Your task to perform on an android device: open app "ColorNote Notepad Notes" (install if not already installed) and enter user name: "unbridled@gmail.com" and password: "regularly" Image 0: 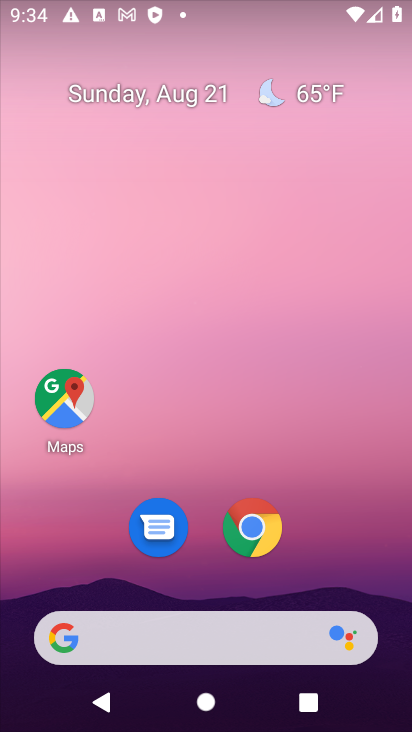
Step 0: drag from (217, 592) to (246, 7)
Your task to perform on an android device: open app "ColorNote Notepad Notes" (install if not already installed) and enter user name: "unbridled@gmail.com" and password: "regularly" Image 1: 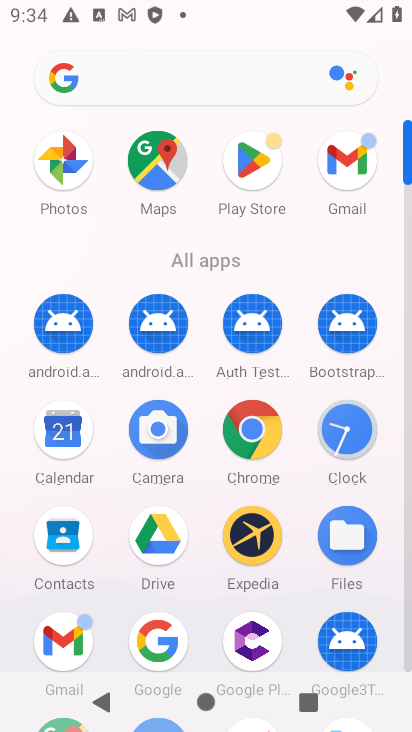
Step 1: click (251, 167)
Your task to perform on an android device: open app "ColorNote Notepad Notes" (install if not already installed) and enter user name: "unbridled@gmail.com" and password: "regularly" Image 2: 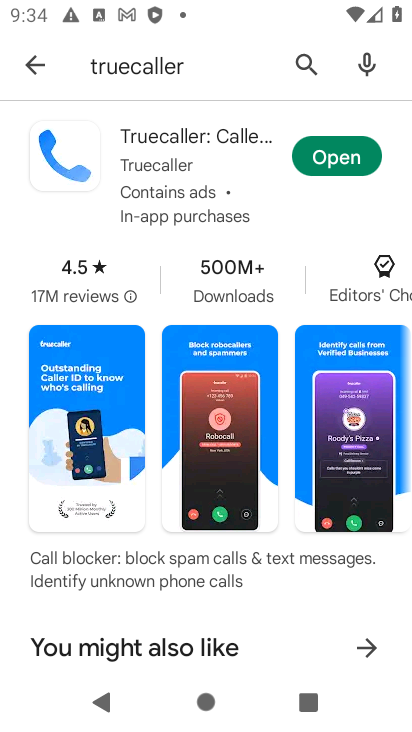
Step 2: click (187, 70)
Your task to perform on an android device: open app "ColorNote Notepad Notes" (install if not already installed) and enter user name: "unbridled@gmail.com" and password: "regularly" Image 3: 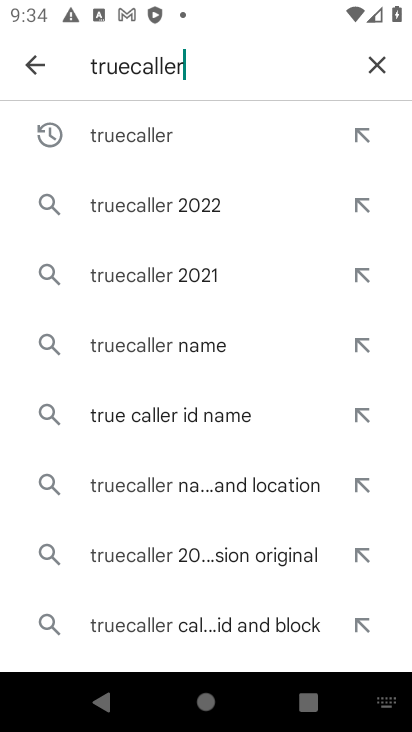
Step 3: click (370, 64)
Your task to perform on an android device: open app "ColorNote Notepad Notes" (install if not already installed) and enter user name: "unbridled@gmail.com" and password: "regularly" Image 4: 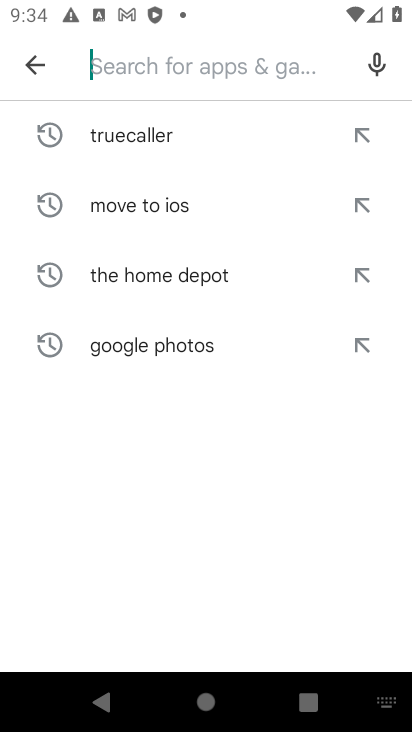
Step 4: type "colornote notepad notes"
Your task to perform on an android device: open app "ColorNote Notepad Notes" (install if not already installed) and enter user name: "unbridled@gmail.com" and password: "regularly" Image 5: 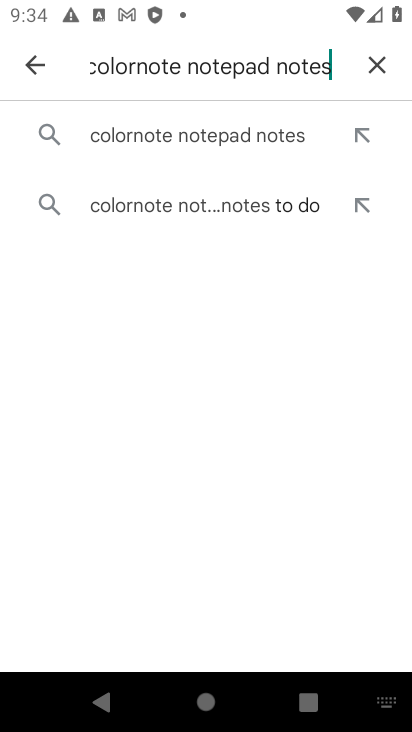
Step 5: click (172, 131)
Your task to perform on an android device: open app "ColorNote Notepad Notes" (install if not already installed) and enter user name: "unbridled@gmail.com" and password: "regularly" Image 6: 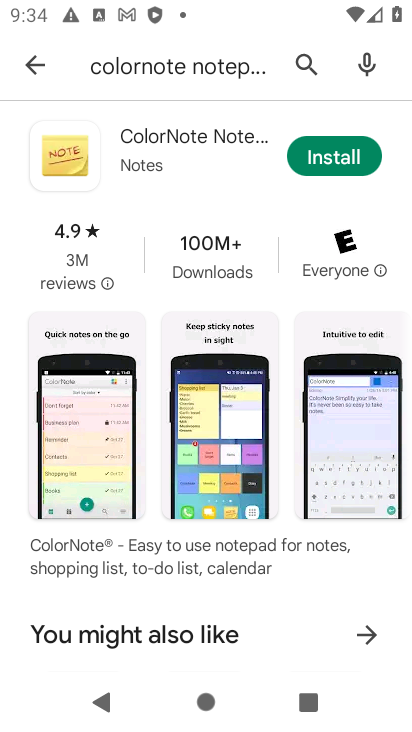
Step 6: click (362, 162)
Your task to perform on an android device: open app "ColorNote Notepad Notes" (install if not already installed) and enter user name: "unbridled@gmail.com" and password: "regularly" Image 7: 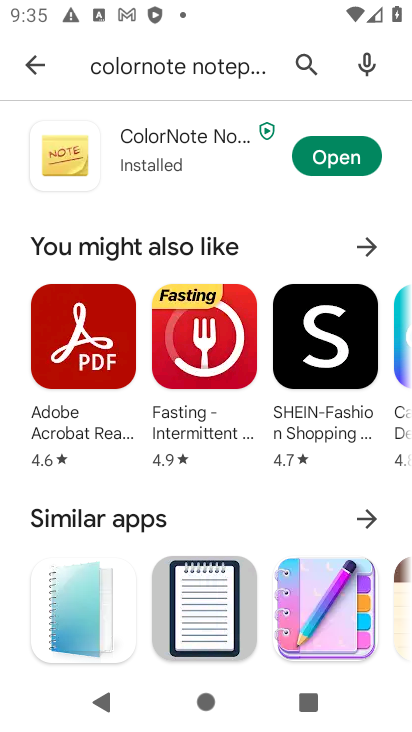
Step 7: click (347, 159)
Your task to perform on an android device: open app "ColorNote Notepad Notes" (install if not already installed) and enter user name: "unbridled@gmail.com" and password: "regularly" Image 8: 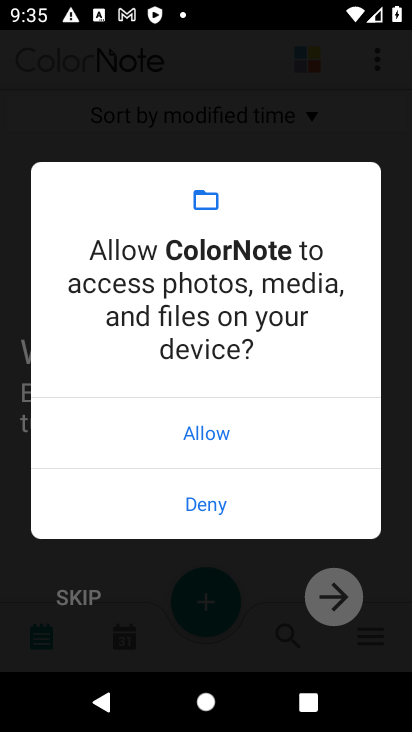
Step 8: click (234, 434)
Your task to perform on an android device: open app "ColorNote Notepad Notes" (install if not already installed) and enter user name: "unbridled@gmail.com" and password: "regularly" Image 9: 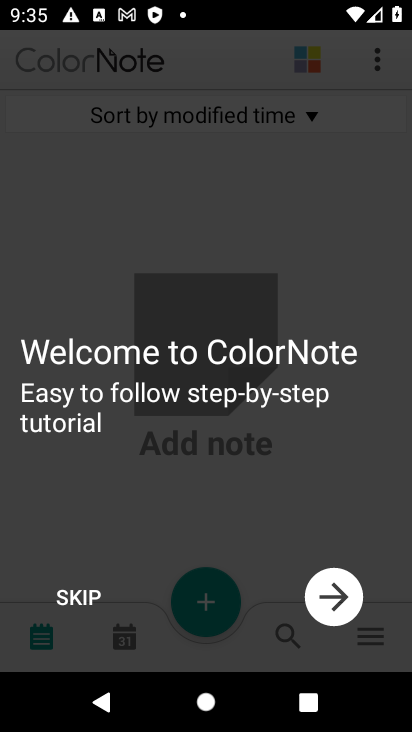
Step 9: click (74, 600)
Your task to perform on an android device: open app "ColorNote Notepad Notes" (install if not already installed) and enter user name: "unbridled@gmail.com" and password: "regularly" Image 10: 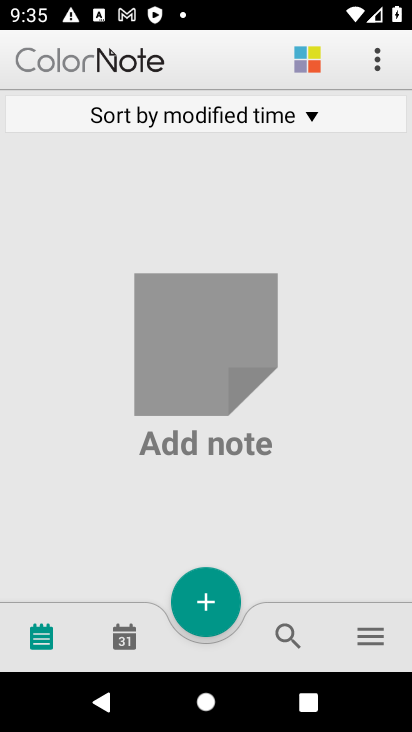
Step 10: click (371, 645)
Your task to perform on an android device: open app "ColorNote Notepad Notes" (install if not already installed) and enter user name: "unbridled@gmail.com" and password: "regularly" Image 11: 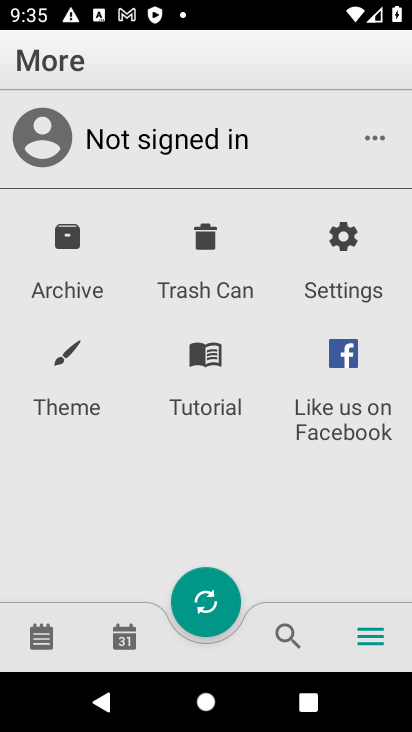
Step 11: click (52, 139)
Your task to perform on an android device: open app "ColorNote Notepad Notes" (install if not already installed) and enter user name: "unbridled@gmail.com" and password: "regularly" Image 12: 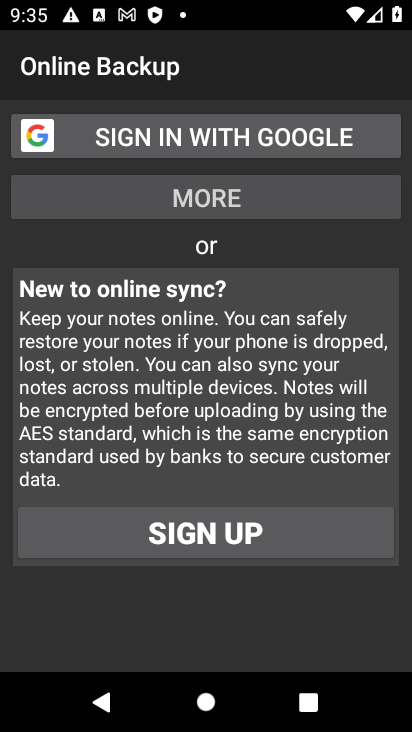
Step 12: click (250, 131)
Your task to perform on an android device: open app "ColorNote Notepad Notes" (install if not already installed) and enter user name: "unbridled@gmail.com" and password: "regularly" Image 13: 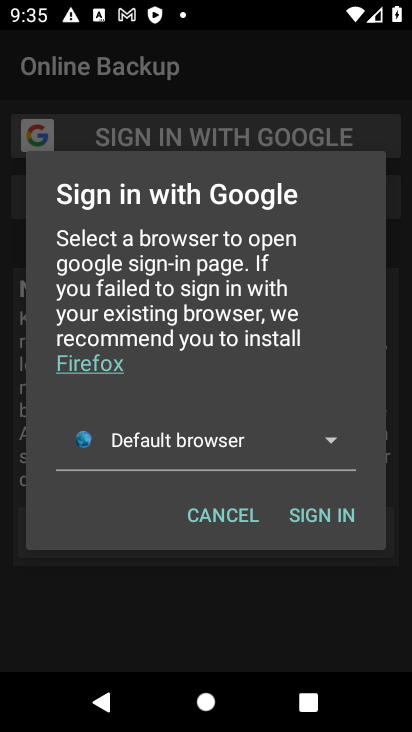
Step 13: click (324, 508)
Your task to perform on an android device: open app "ColorNote Notepad Notes" (install if not already installed) and enter user name: "unbridled@gmail.com" and password: "regularly" Image 14: 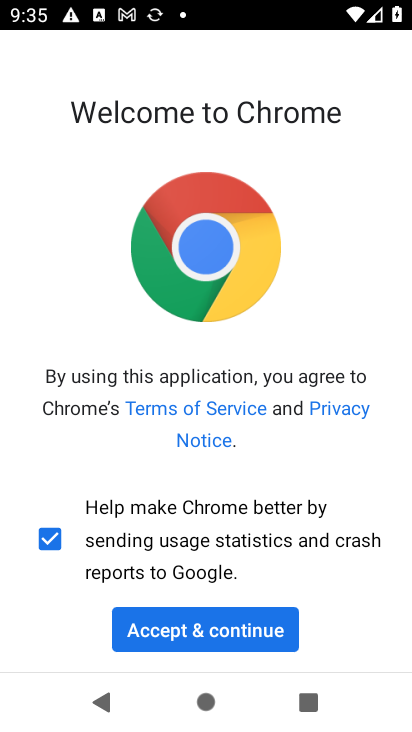
Step 14: click (209, 627)
Your task to perform on an android device: open app "ColorNote Notepad Notes" (install if not already installed) and enter user name: "unbridled@gmail.com" and password: "regularly" Image 15: 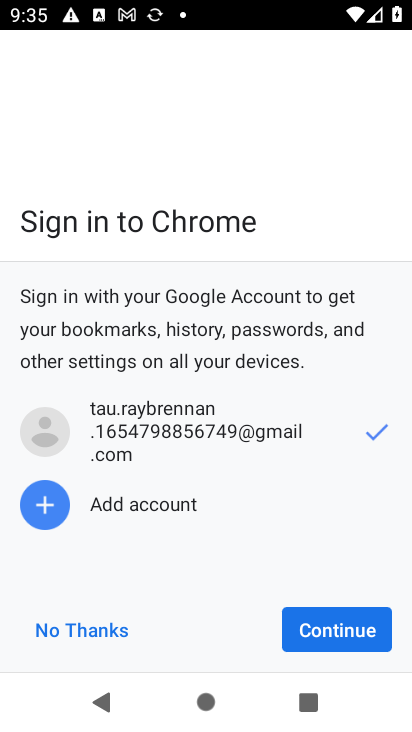
Step 15: click (349, 632)
Your task to perform on an android device: open app "ColorNote Notepad Notes" (install if not already installed) and enter user name: "unbridled@gmail.com" and password: "regularly" Image 16: 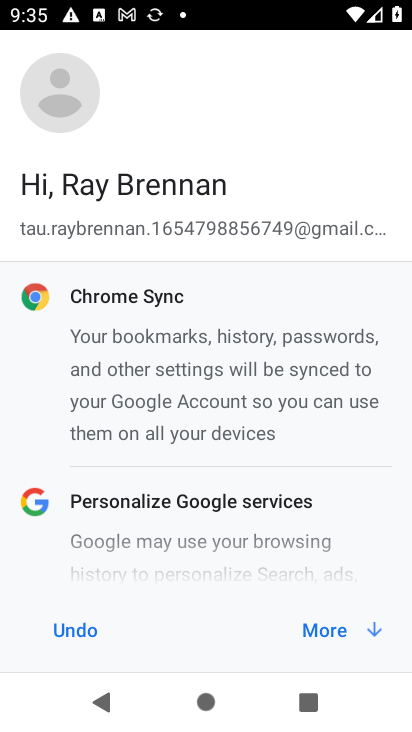
Step 16: click (355, 637)
Your task to perform on an android device: open app "ColorNote Notepad Notes" (install if not already installed) and enter user name: "unbridled@gmail.com" and password: "regularly" Image 17: 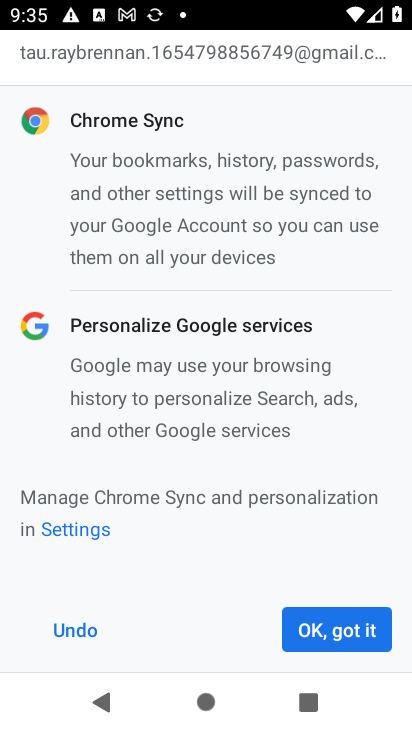
Step 17: click (355, 640)
Your task to perform on an android device: open app "ColorNote Notepad Notes" (install if not already installed) and enter user name: "unbridled@gmail.com" and password: "regularly" Image 18: 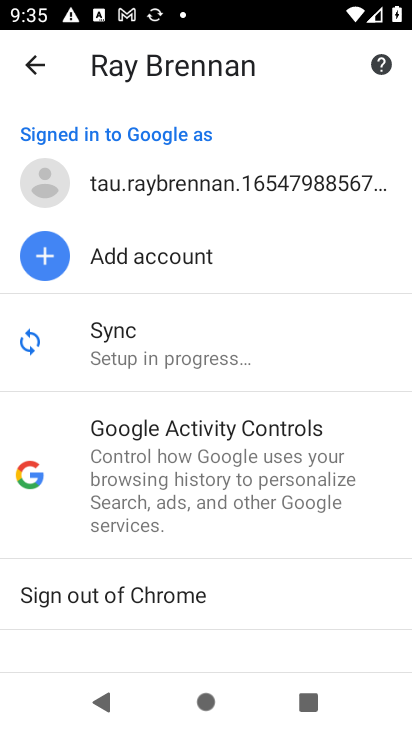
Step 18: task complete